Your task to perform on an android device: turn on sleep mode Image 0: 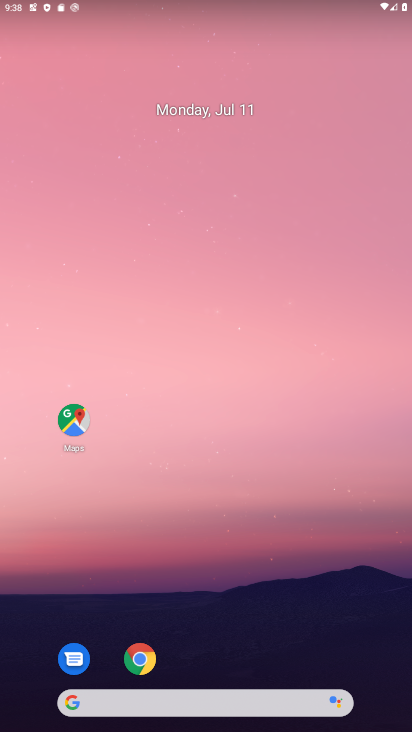
Step 0: drag from (303, 591) to (353, 1)
Your task to perform on an android device: turn on sleep mode Image 1: 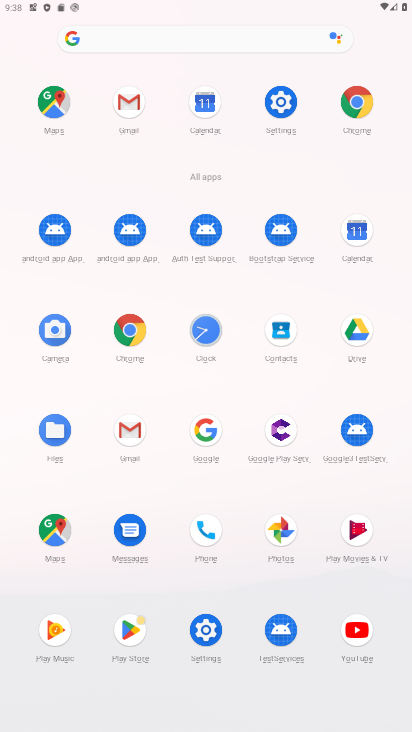
Step 1: click (282, 105)
Your task to perform on an android device: turn on sleep mode Image 2: 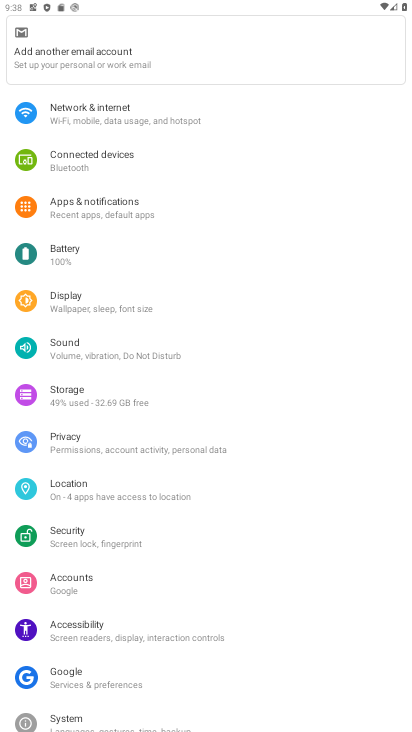
Step 2: click (86, 297)
Your task to perform on an android device: turn on sleep mode Image 3: 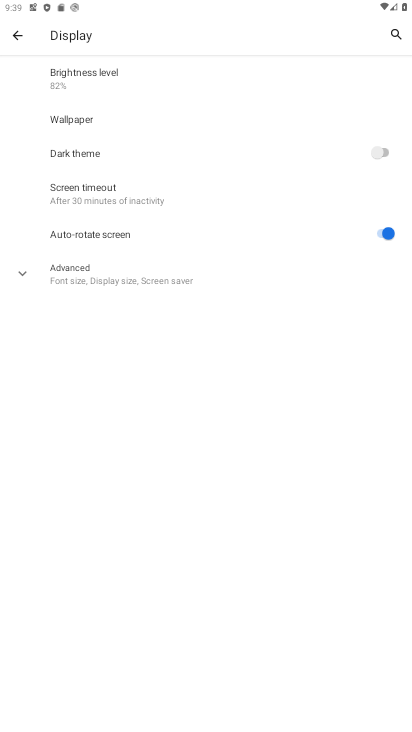
Step 3: click (114, 204)
Your task to perform on an android device: turn on sleep mode Image 4: 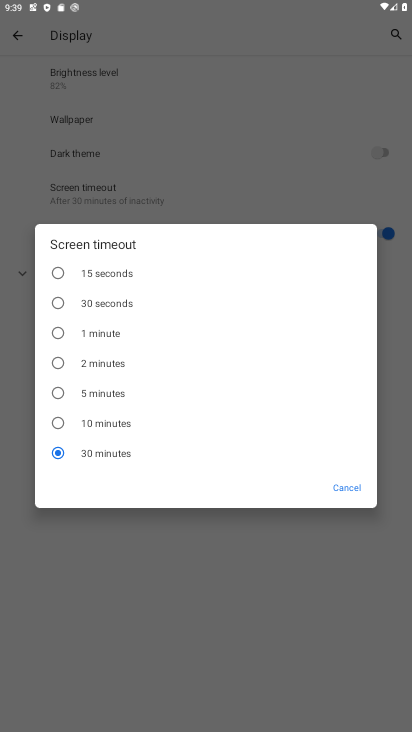
Step 4: task complete